Your task to perform on an android device: turn off wifi Image 0: 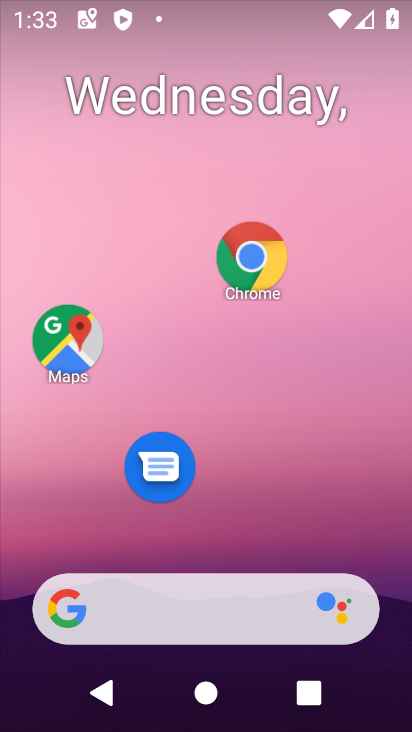
Step 0: drag from (178, 1) to (142, 470)
Your task to perform on an android device: turn off wifi Image 1: 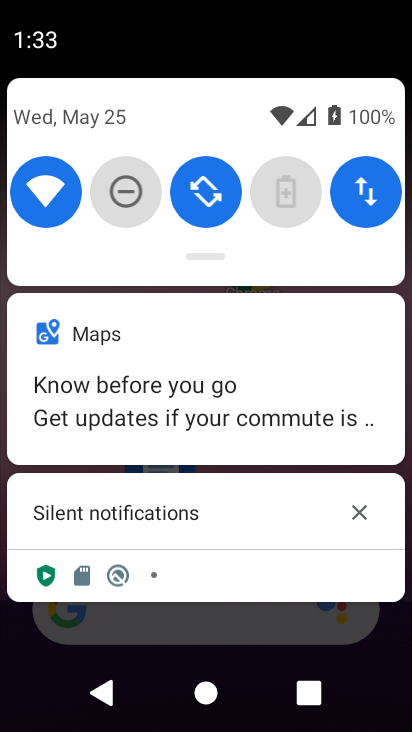
Step 1: click (51, 177)
Your task to perform on an android device: turn off wifi Image 2: 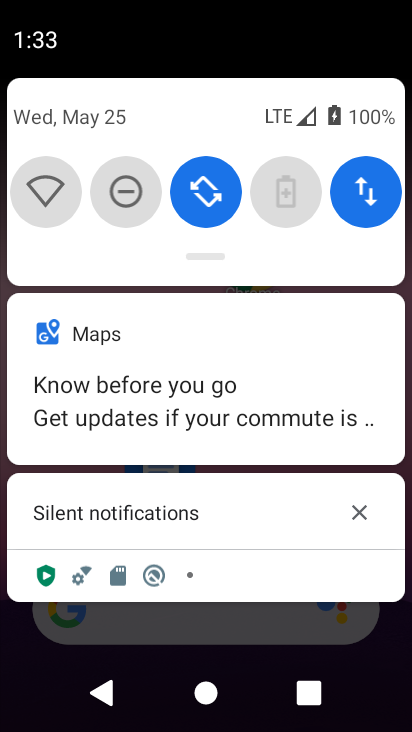
Step 2: task complete